Your task to perform on an android device: Open Chrome and go to settings Image 0: 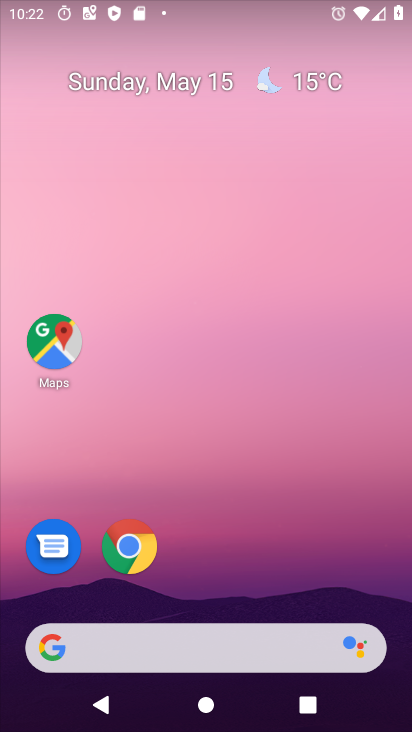
Step 0: drag from (258, 678) to (40, 6)
Your task to perform on an android device: Open Chrome and go to settings Image 1: 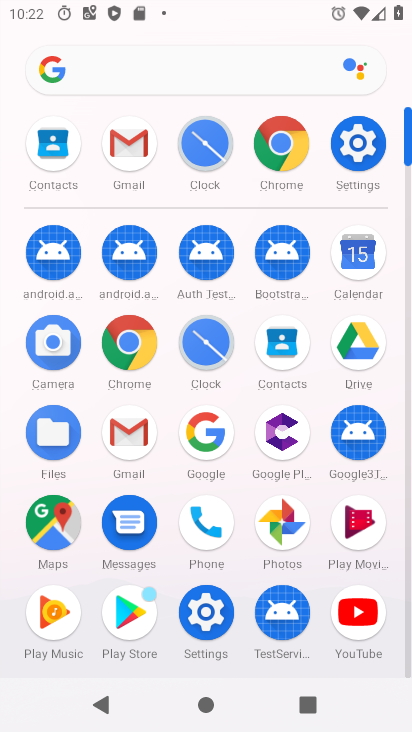
Step 1: click (279, 131)
Your task to perform on an android device: Open Chrome and go to settings Image 2: 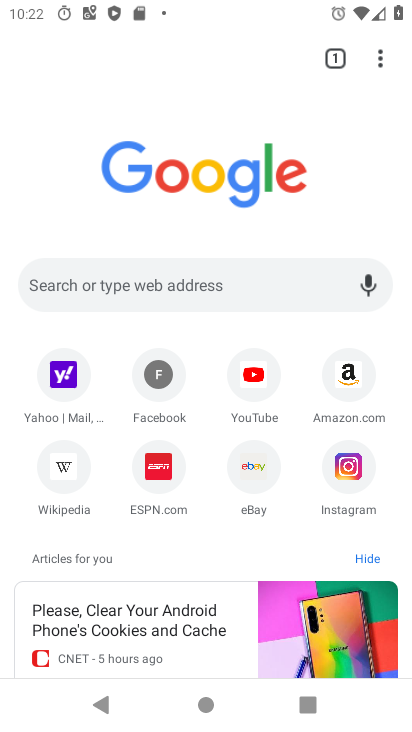
Step 2: click (377, 51)
Your task to perform on an android device: Open Chrome and go to settings Image 3: 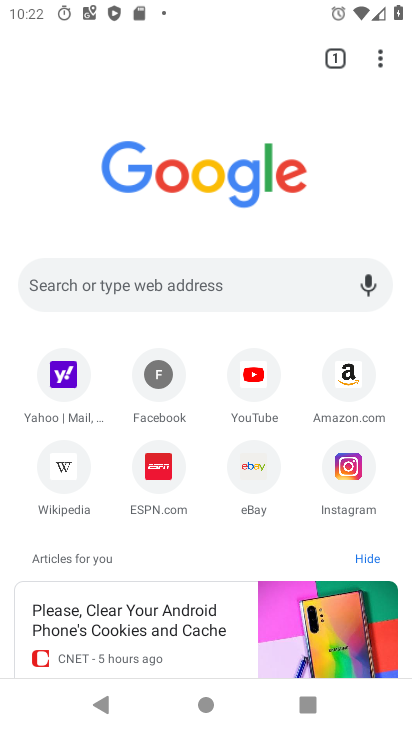
Step 3: click (380, 54)
Your task to perform on an android device: Open Chrome and go to settings Image 4: 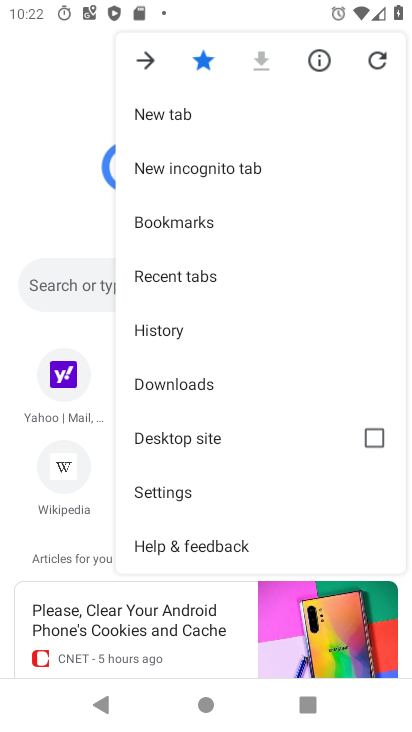
Step 4: click (156, 502)
Your task to perform on an android device: Open Chrome and go to settings Image 5: 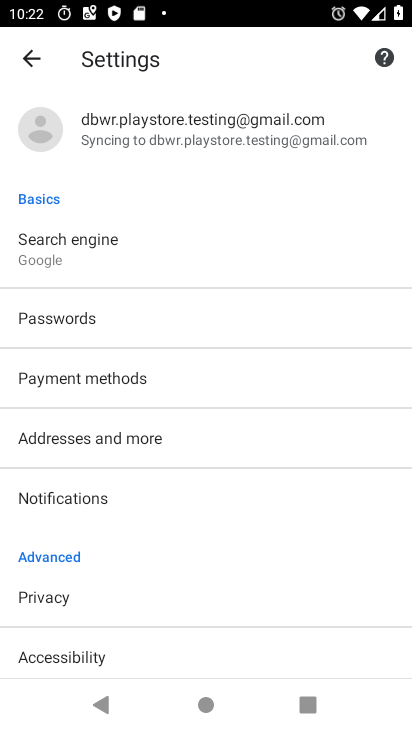
Step 5: drag from (160, 508) to (56, 130)
Your task to perform on an android device: Open Chrome and go to settings Image 6: 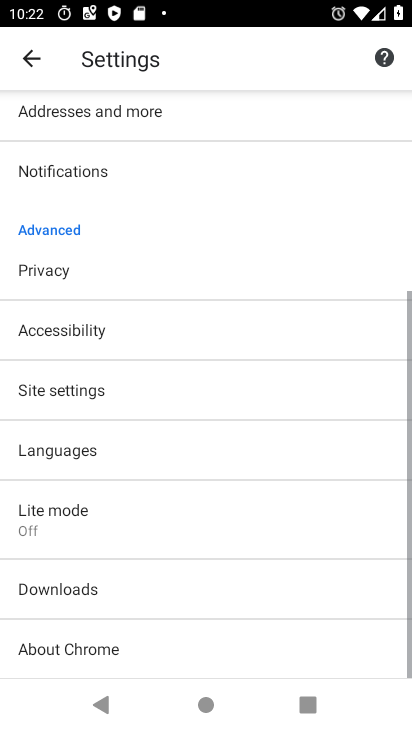
Step 6: drag from (145, 486) to (140, 110)
Your task to perform on an android device: Open Chrome and go to settings Image 7: 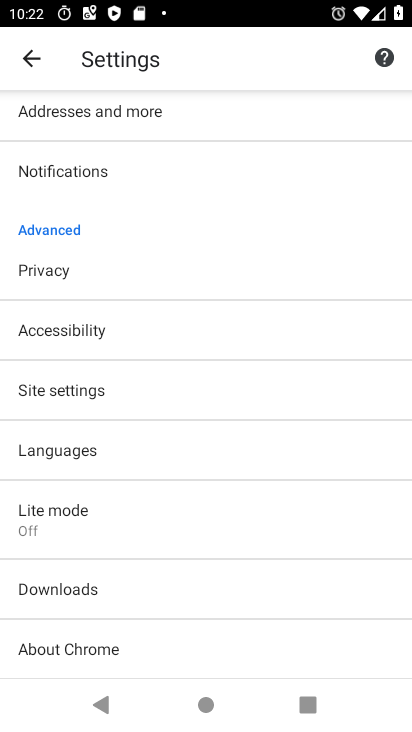
Step 7: click (60, 386)
Your task to perform on an android device: Open Chrome and go to settings Image 8: 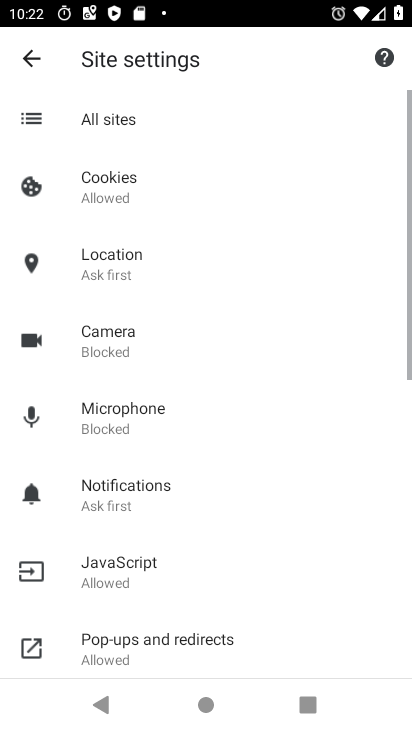
Step 8: task complete